Your task to perform on an android device: Open Wikipedia Image 0: 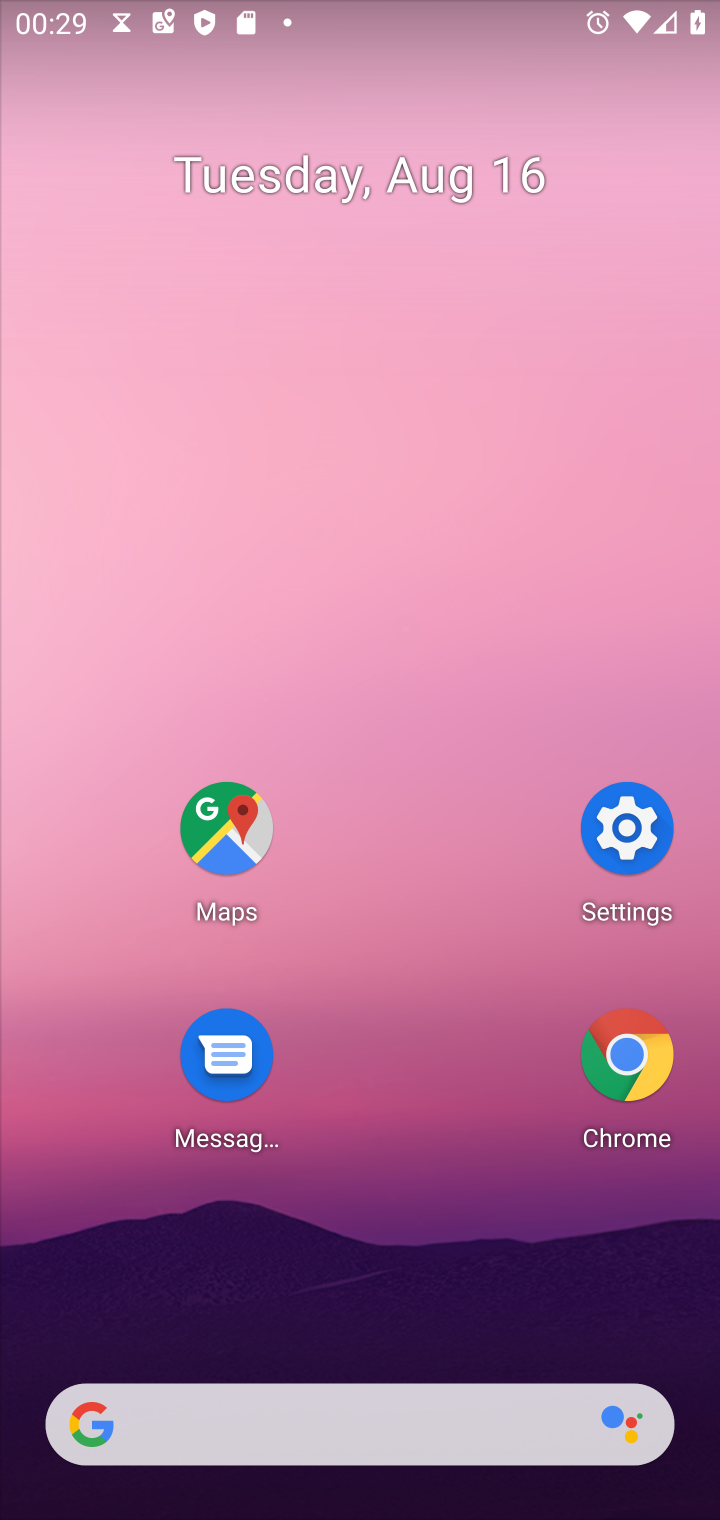
Step 0: click (616, 1056)
Your task to perform on an android device: Open Wikipedia Image 1: 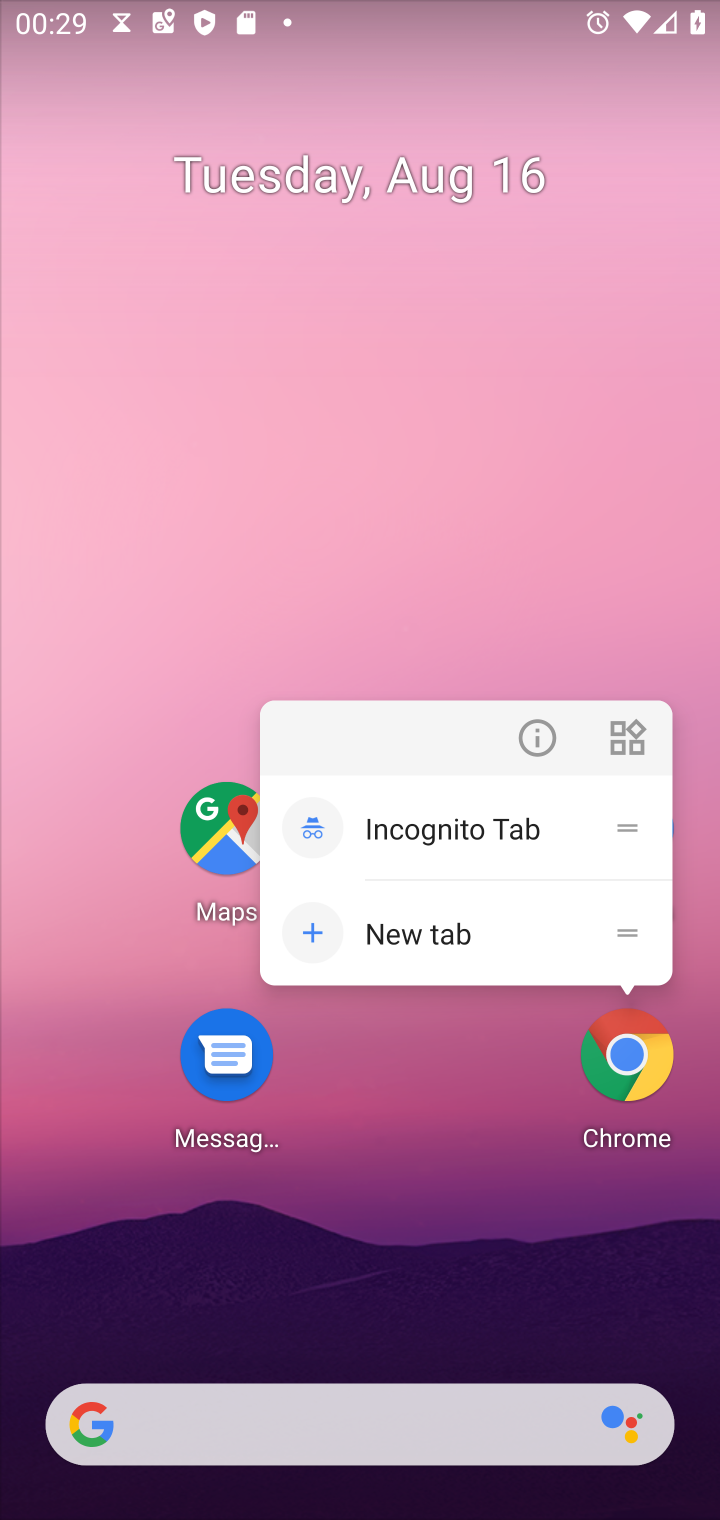
Step 1: click (616, 1065)
Your task to perform on an android device: Open Wikipedia Image 2: 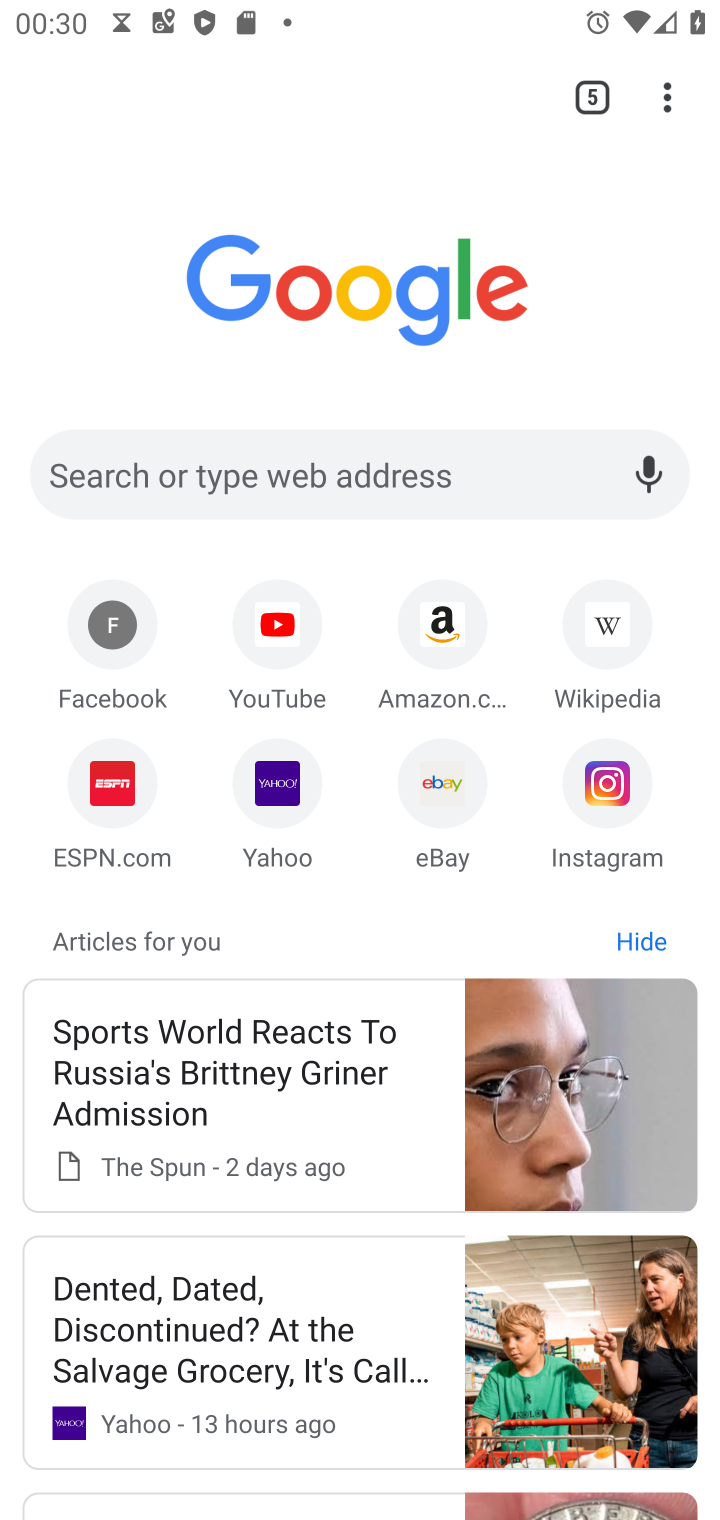
Step 2: click (602, 615)
Your task to perform on an android device: Open Wikipedia Image 3: 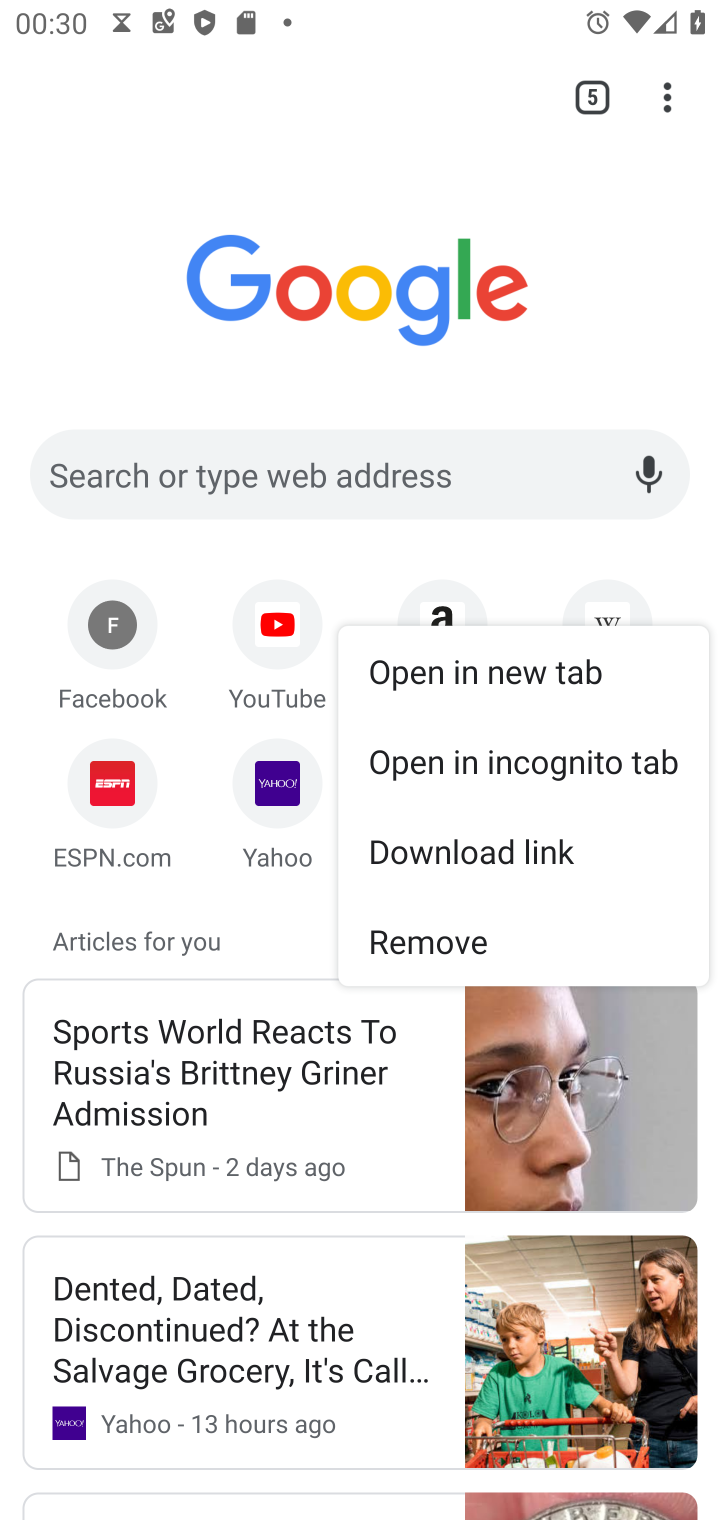
Step 3: click (602, 604)
Your task to perform on an android device: Open Wikipedia Image 4: 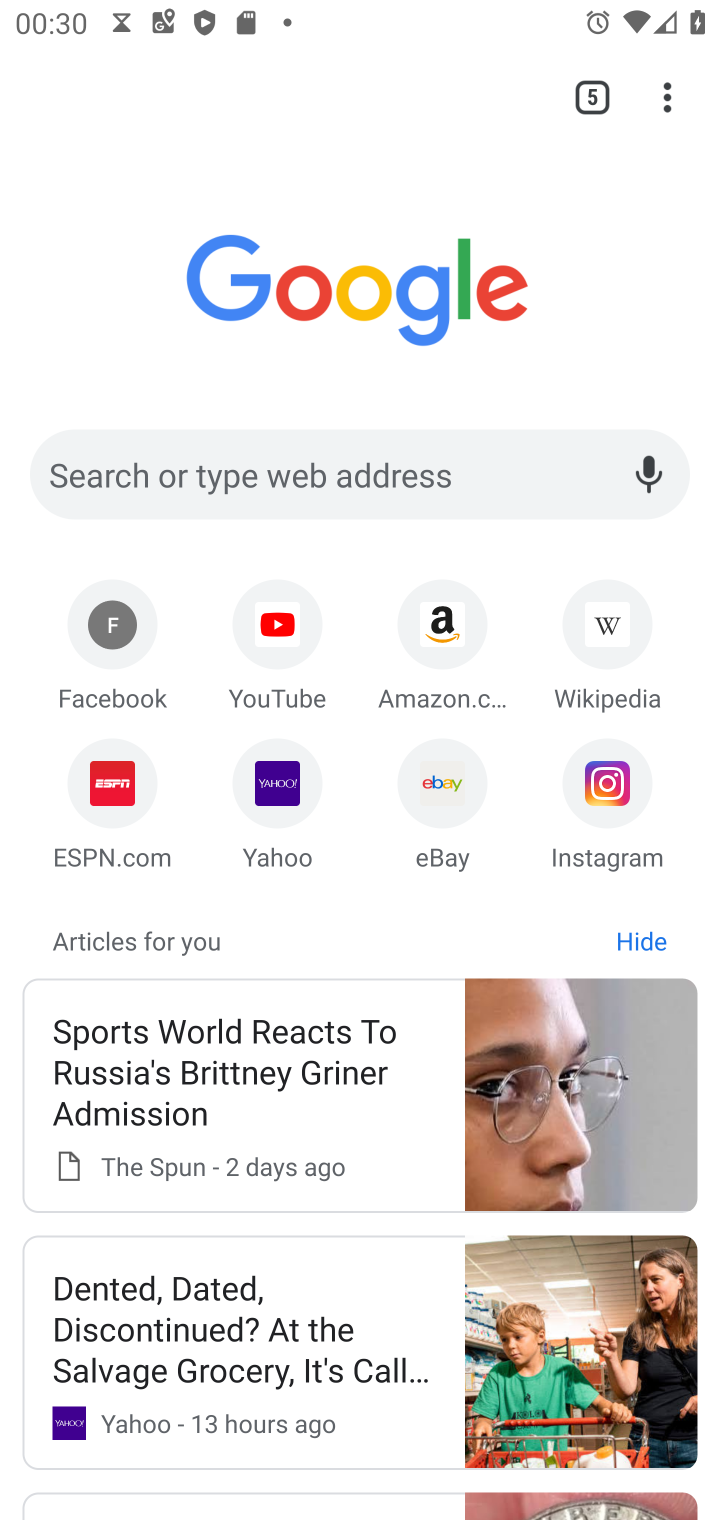
Step 4: click (602, 609)
Your task to perform on an android device: Open Wikipedia Image 5: 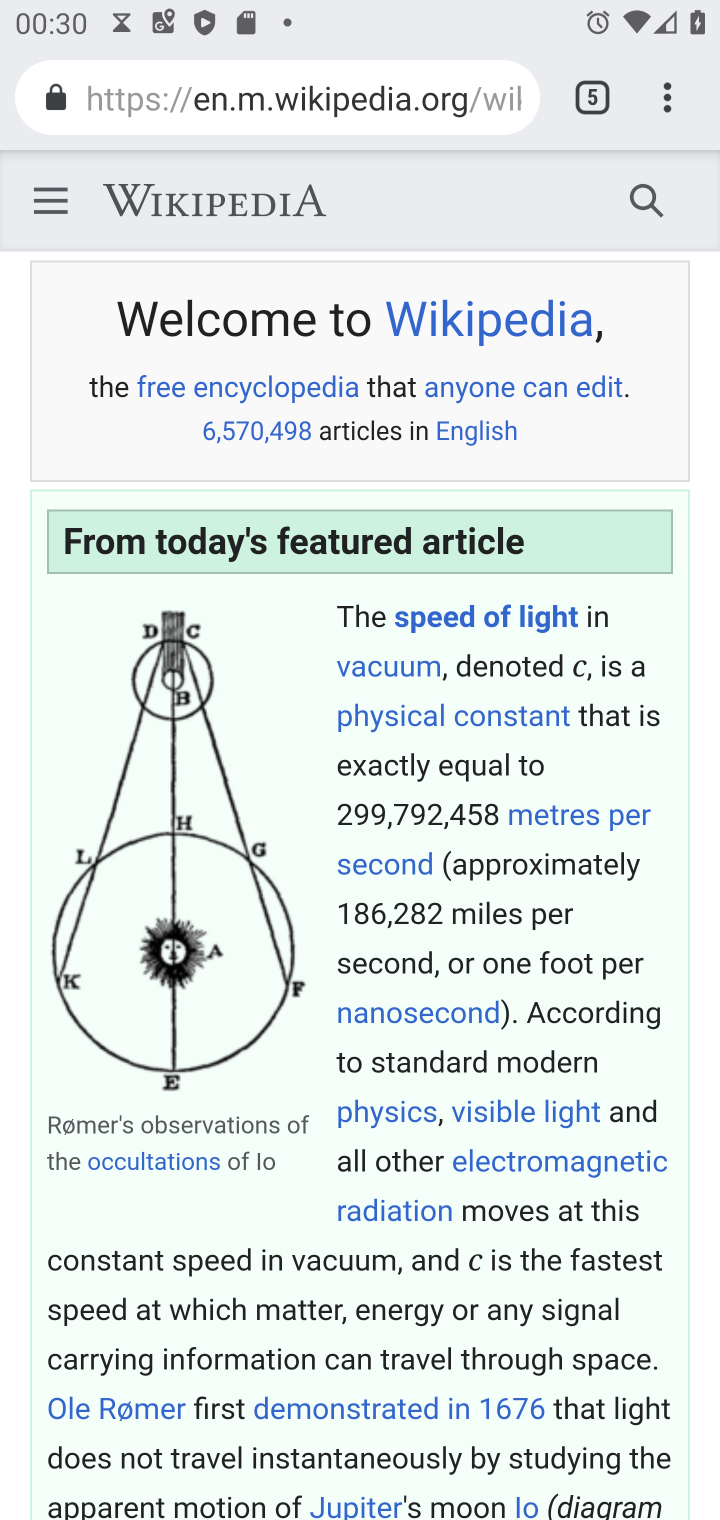
Step 5: task complete